Your task to perform on an android device: Open Chrome and go to settings Image 0: 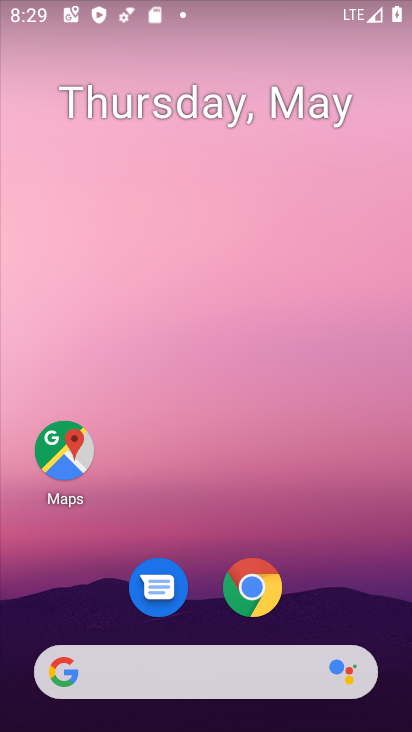
Step 0: click (256, 600)
Your task to perform on an android device: Open Chrome and go to settings Image 1: 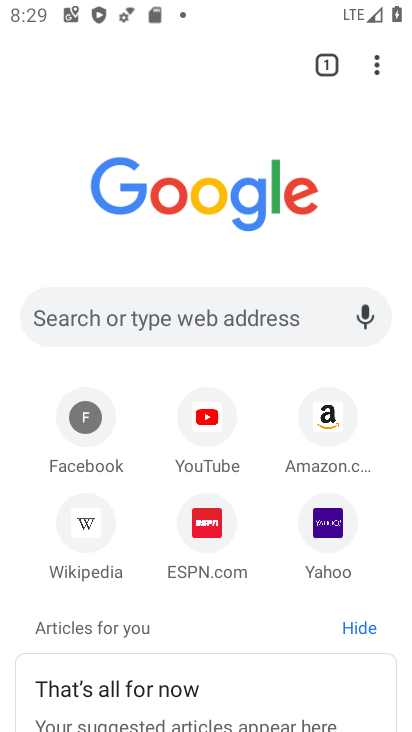
Step 1: click (383, 71)
Your task to perform on an android device: Open Chrome and go to settings Image 2: 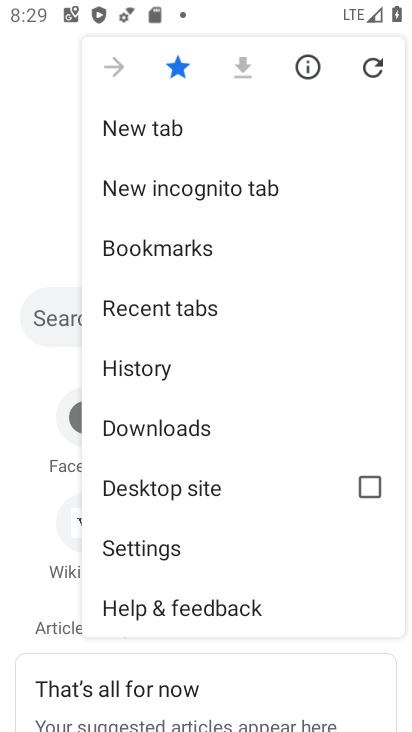
Step 2: click (167, 560)
Your task to perform on an android device: Open Chrome and go to settings Image 3: 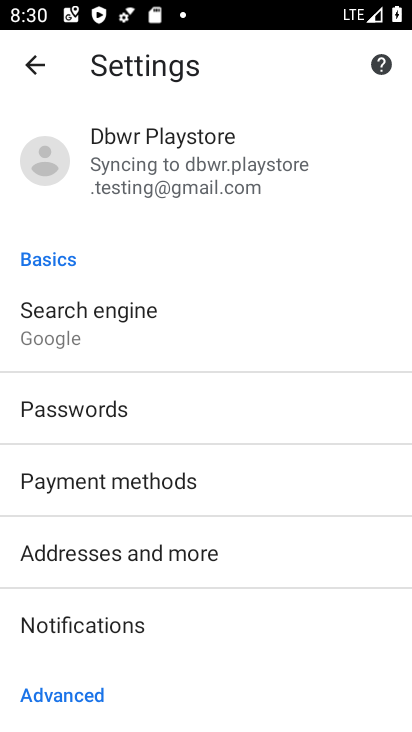
Step 3: task complete